Your task to perform on an android device: check the backup settings in the google photos Image 0: 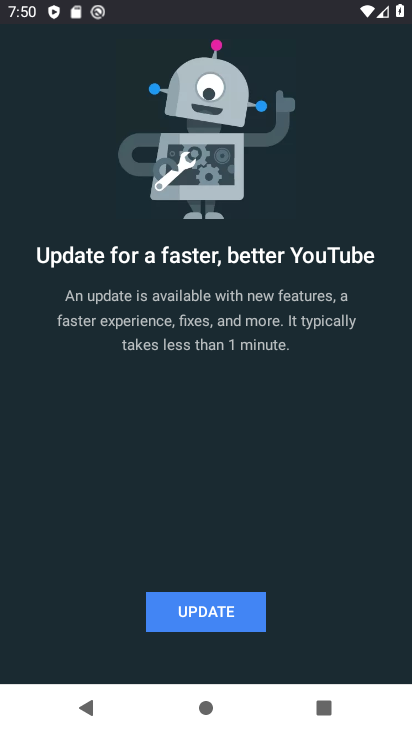
Step 0: press home button
Your task to perform on an android device: check the backup settings in the google photos Image 1: 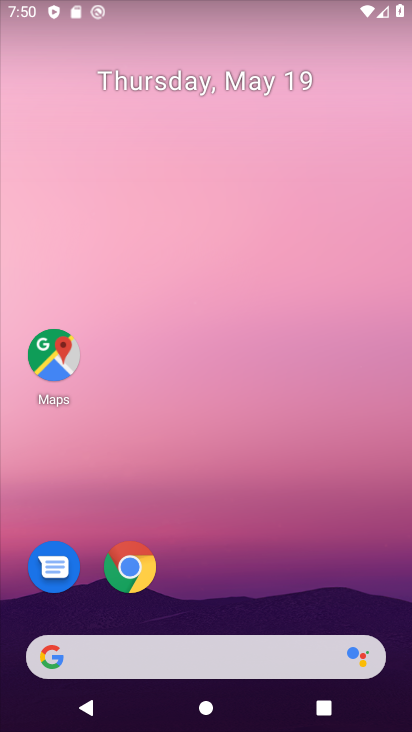
Step 1: drag from (223, 612) to (240, 158)
Your task to perform on an android device: check the backup settings in the google photos Image 2: 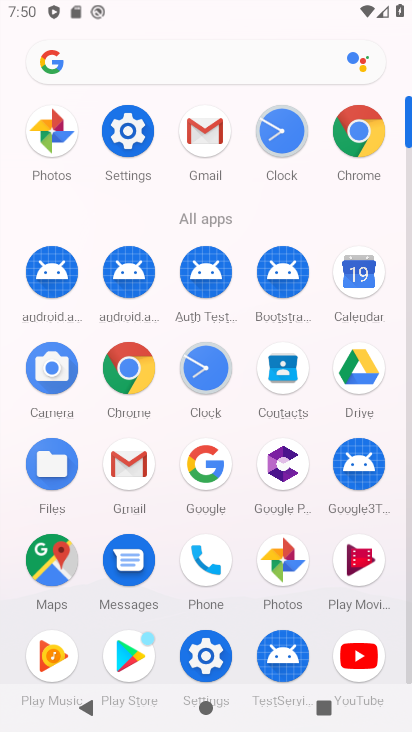
Step 2: click (61, 144)
Your task to perform on an android device: check the backup settings in the google photos Image 3: 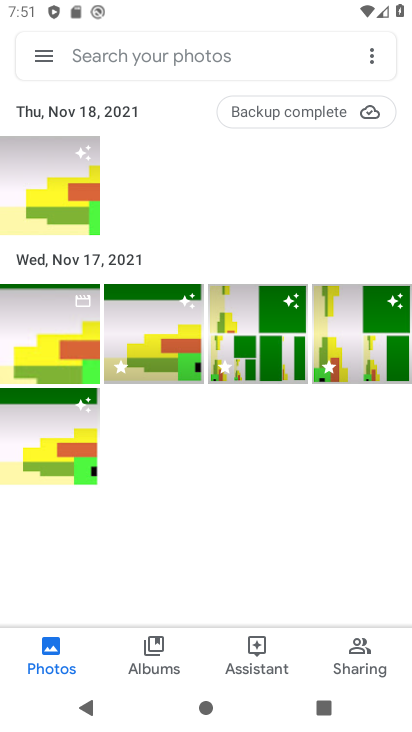
Step 3: click (44, 64)
Your task to perform on an android device: check the backup settings in the google photos Image 4: 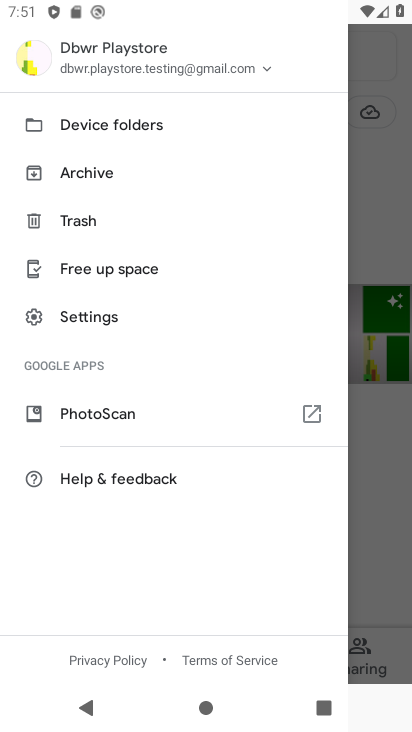
Step 4: click (66, 306)
Your task to perform on an android device: check the backup settings in the google photos Image 5: 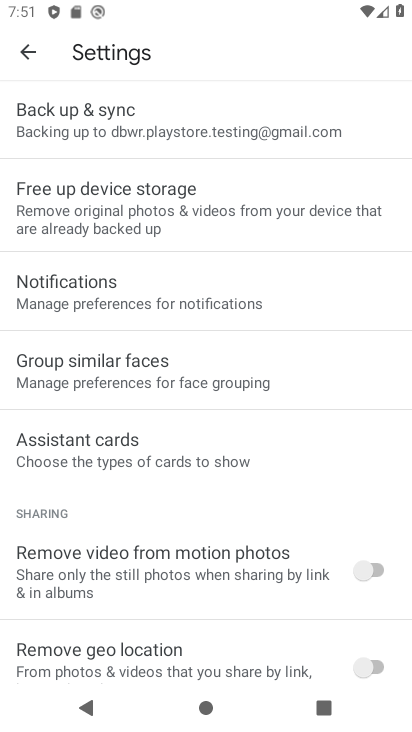
Step 5: click (138, 116)
Your task to perform on an android device: check the backup settings in the google photos Image 6: 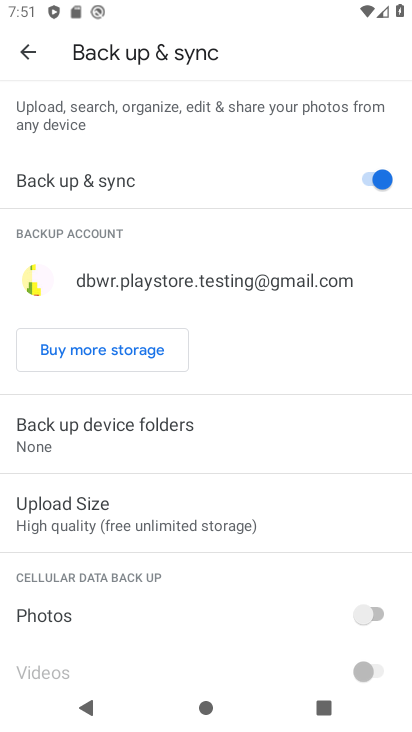
Step 6: task complete